Your task to perform on an android device: Open Google Chrome and click the shortcut for Amazon.com Image 0: 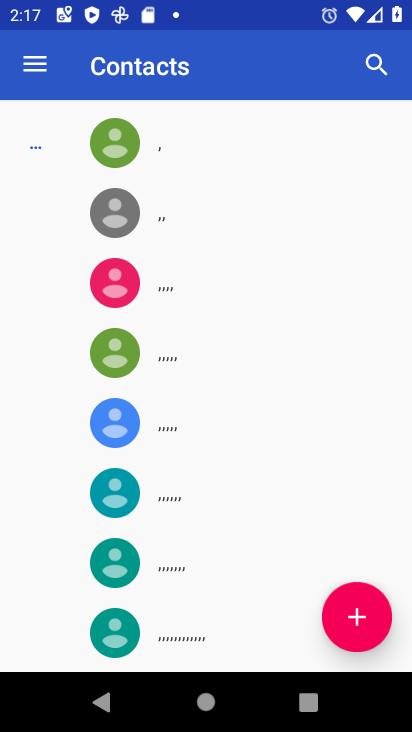
Step 0: press home button
Your task to perform on an android device: Open Google Chrome and click the shortcut for Amazon.com Image 1: 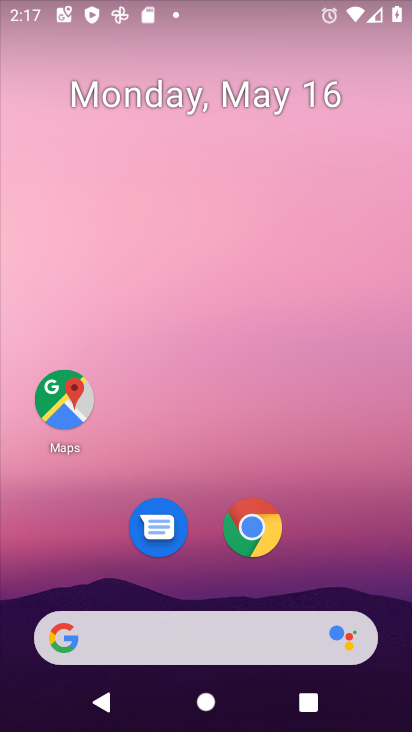
Step 1: click (281, 515)
Your task to perform on an android device: Open Google Chrome and click the shortcut for Amazon.com Image 2: 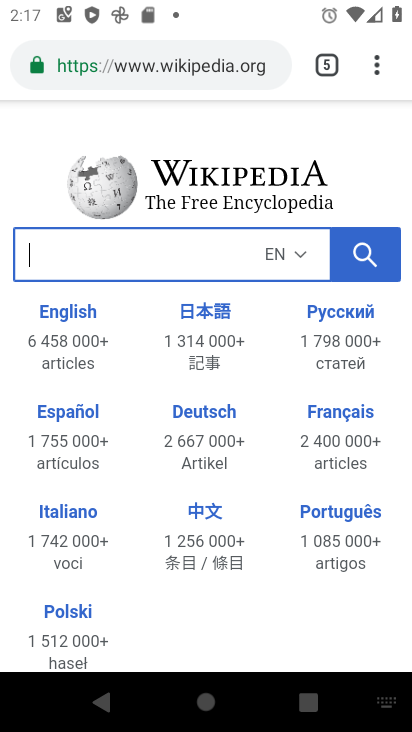
Step 2: click (227, 82)
Your task to perform on an android device: Open Google Chrome and click the shortcut for Amazon.com Image 3: 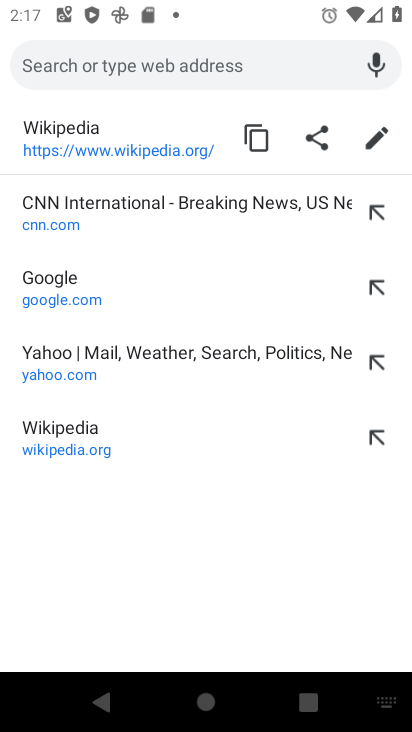
Step 3: type "amazon"
Your task to perform on an android device: Open Google Chrome and click the shortcut for Amazon.com Image 4: 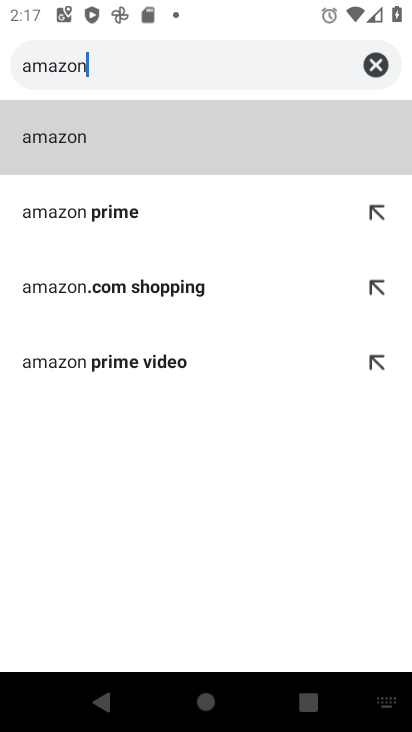
Step 4: click (97, 149)
Your task to perform on an android device: Open Google Chrome and click the shortcut for Amazon.com Image 5: 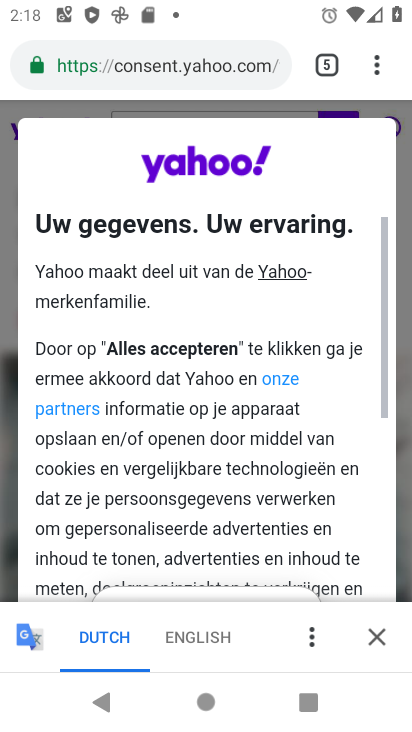
Step 5: type "a"
Your task to perform on an android device: Open Google Chrome and click the shortcut for Amazon.com Image 6: 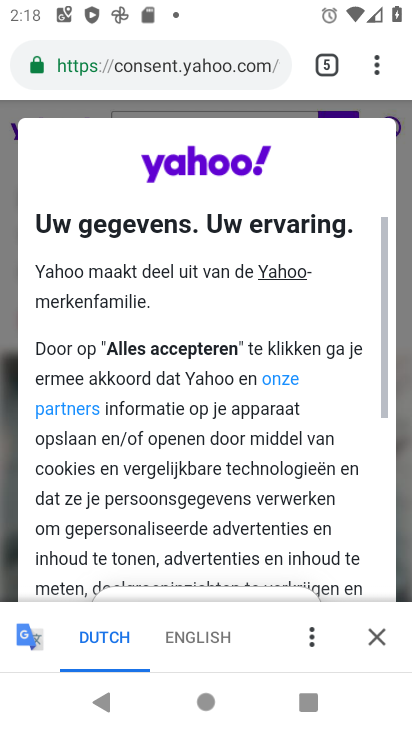
Step 6: click (280, 73)
Your task to perform on an android device: Open Google Chrome and click the shortcut for Amazon.com Image 7: 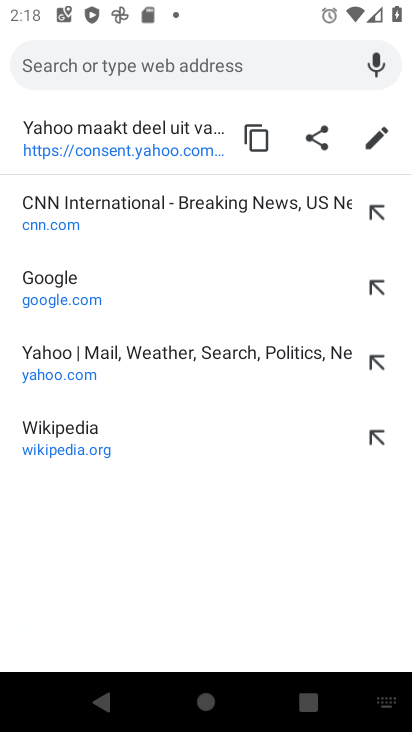
Step 7: click (280, 73)
Your task to perform on an android device: Open Google Chrome and click the shortcut for Amazon.com Image 8: 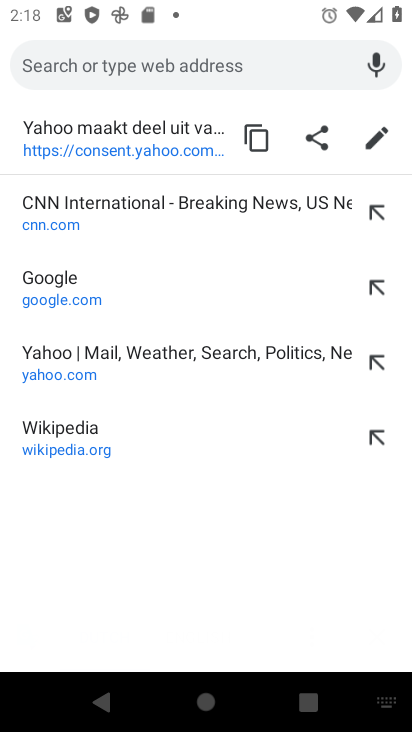
Step 8: click (280, 73)
Your task to perform on an android device: Open Google Chrome and click the shortcut for Amazon.com Image 9: 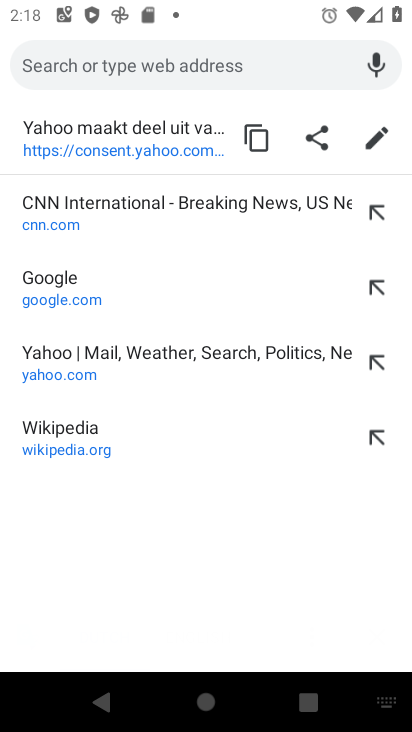
Step 9: type "amazon.com"
Your task to perform on an android device: Open Google Chrome and click the shortcut for Amazon.com Image 10: 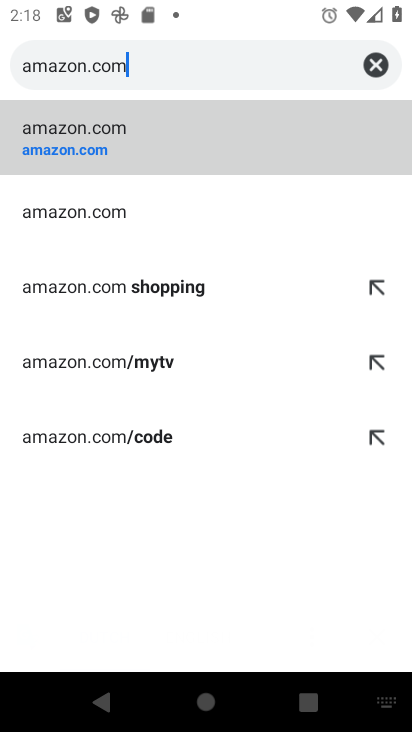
Step 10: click (169, 220)
Your task to perform on an android device: Open Google Chrome and click the shortcut for Amazon.com Image 11: 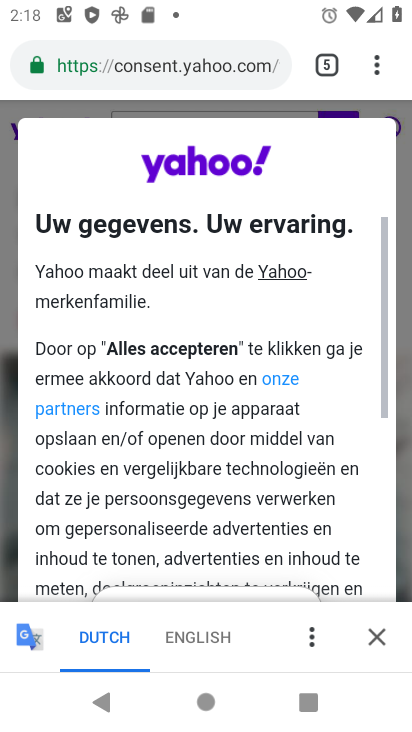
Step 11: task complete